Your task to perform on an android device: manage bookmarks in the chrome app Image 0: 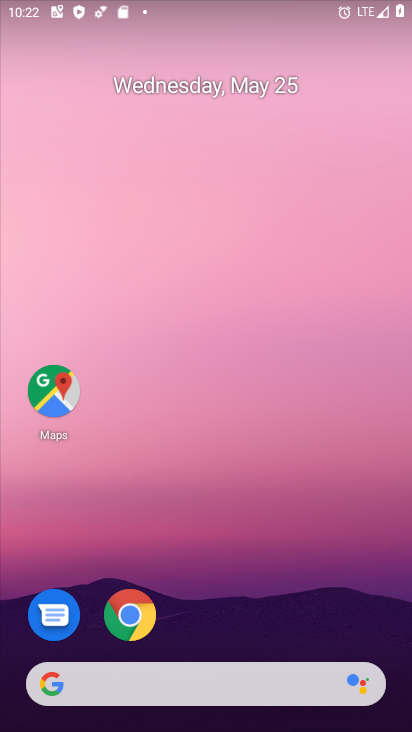
Step 0: click (143, 610)
Your task to perform on an android device: manage bookmarks in the chrome app Image 1: 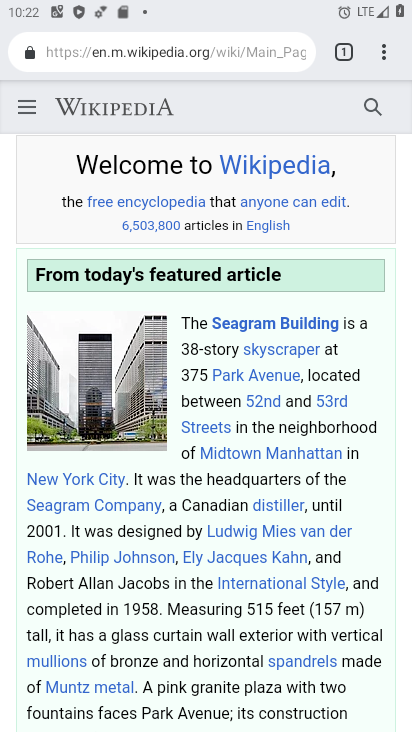
Step 1: click (381, 56)
Your task to perform on an android device: manage bookmarks in the chrome app Image 2: 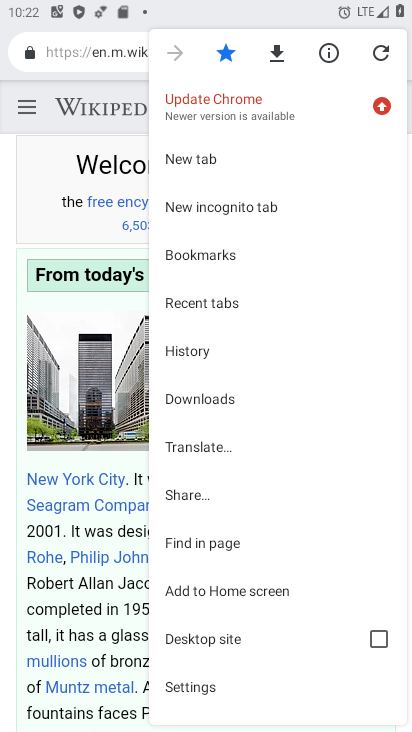
Step 2: click (221, 253)
Your task to perform on an android device: manage bookmarks in the chrome app Image 3: 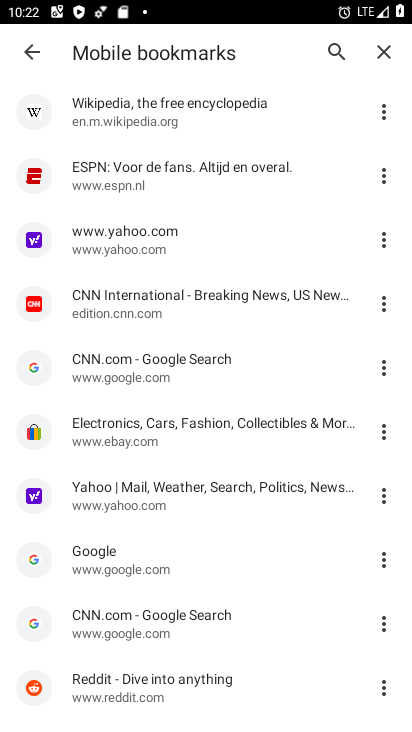
Step 3: click (381, 178)
Your task to perform on an android device: manage bookmarks in the chrome app Image 4: 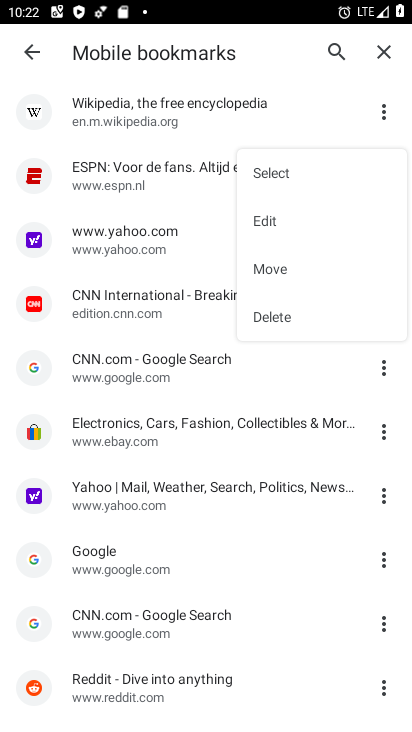
Step 4: click (325, 211)
Your task to perform on an android device: manage bookmarks in the chrome app Image 5: 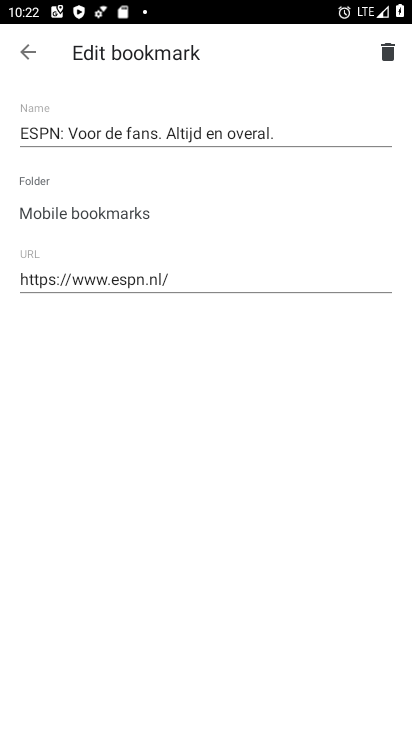
Step 5: click (30, 45)
Your task to perform on an android device: manage bookmarks in the chrome app Image 6: 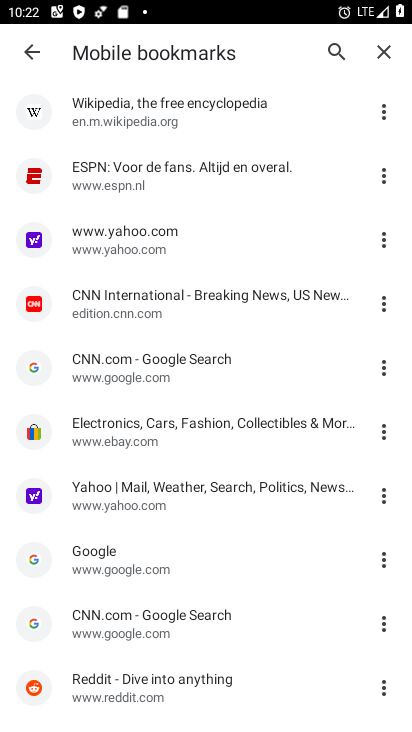
Step 6: task complete